Your task to perform on an android device: Go to Google Image 0: 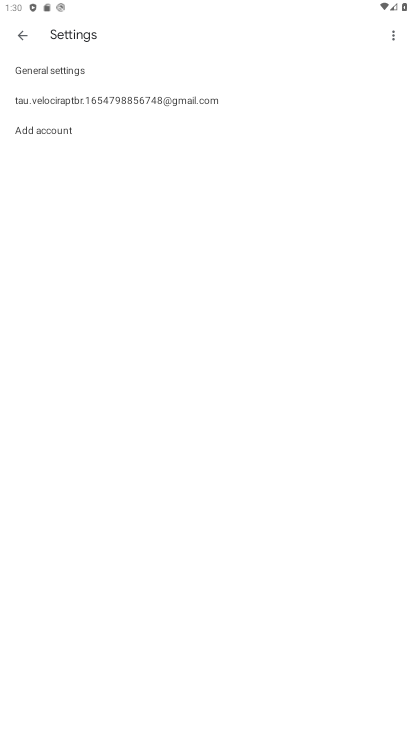
Step 0: press home button
Your task to perform on an android device: Go to Google Image 1: 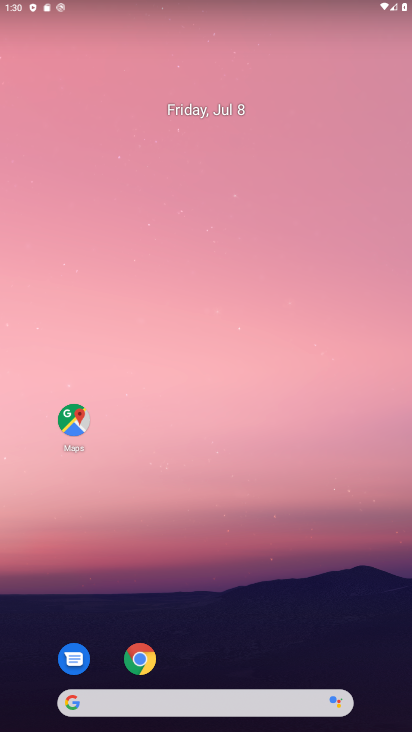
Step 1: drag from (251, 553) to (220, 250)
Your task to perform on an android device: Go to Google Image 2: 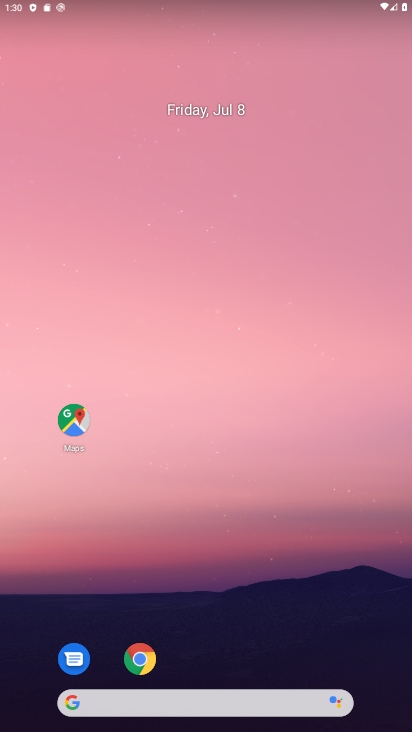
Step 2: drag from (333, 603) to (224, 165)
Your task to perform on an android device: Go to Google Image 3: 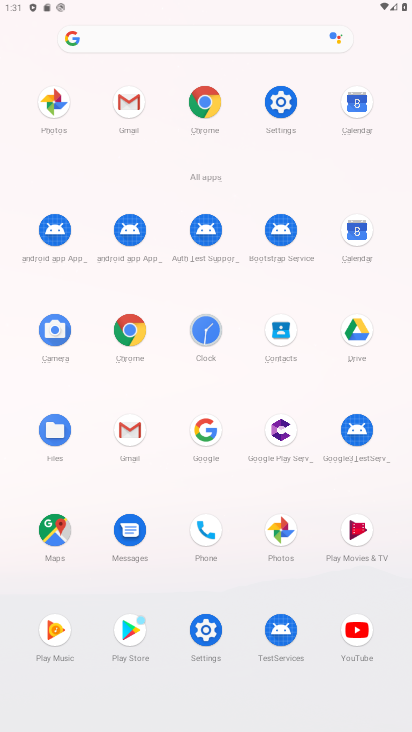
Step 3: click (209, 436)
Your task to perform on an android device: Go to Google Image 4: 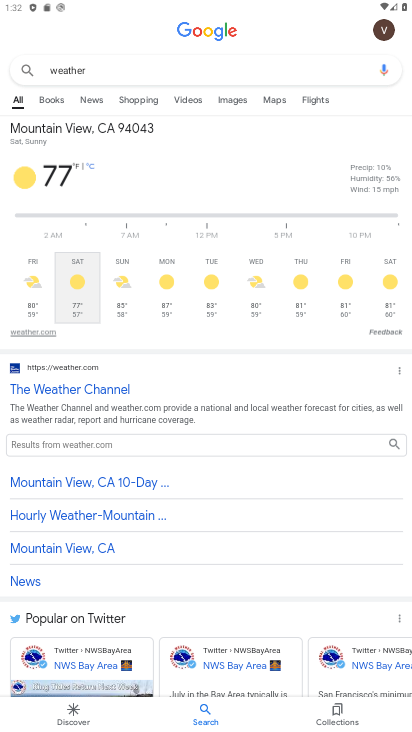
Step 4: task complete